Your task to perform on an android device: Open sound settings Image 0: 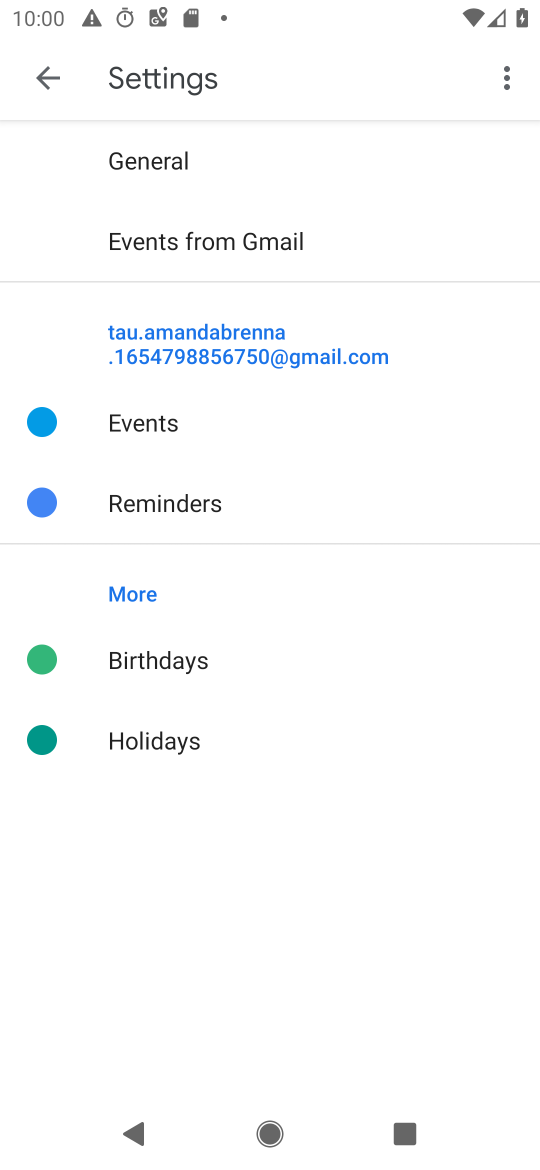
Step 0: press home button
Your task to perform on an android device: Open sound settings Image 1: 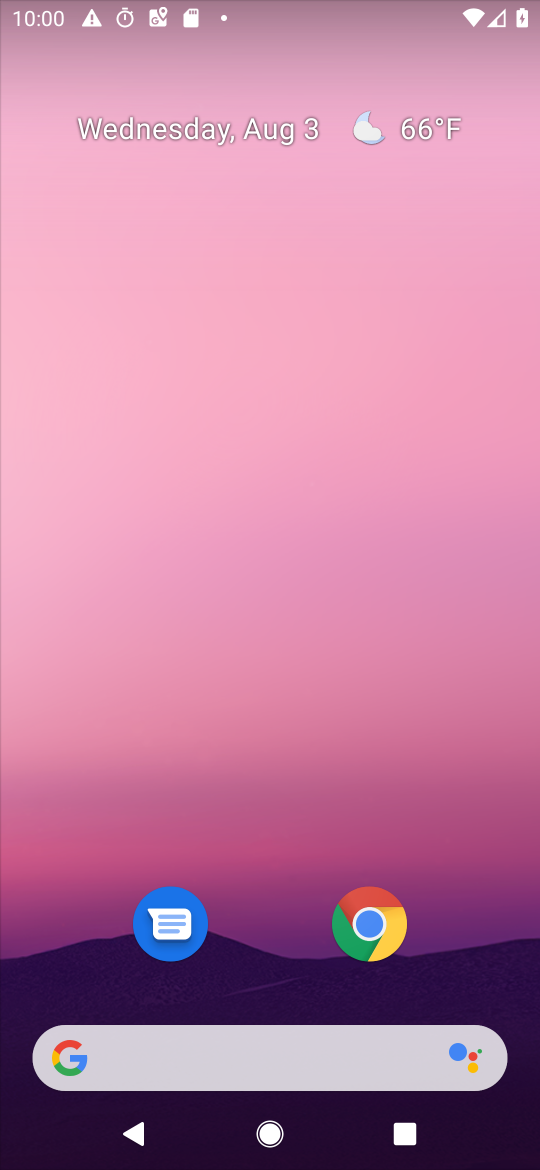
Step 1: drag from (276, 987) to (253, 292)
Your task to perform on an android device: Open sound settings Image 2: 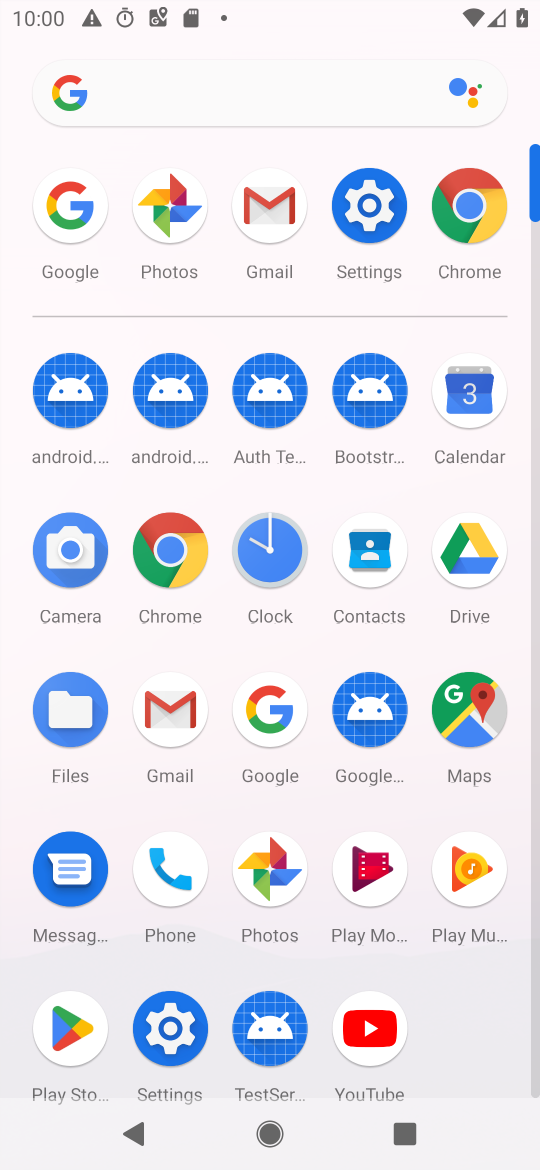
Step 2: click (374, 188)
Your task to perform on an android device: Open sound settings Image 3: 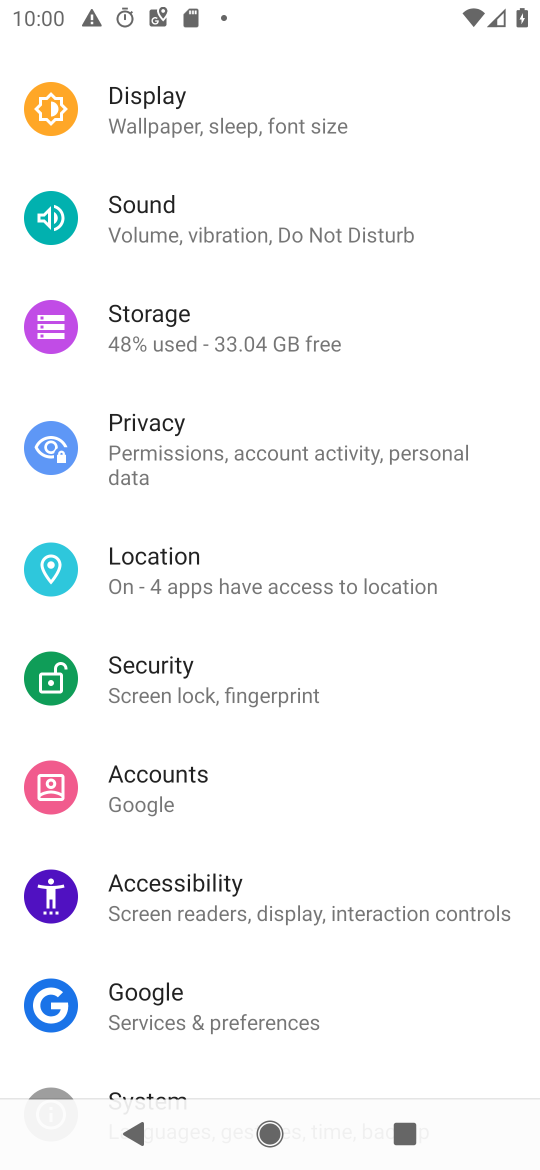
Step 3: click (183, 222)
Your task to perform on an android device: Open sound settings Image 4: 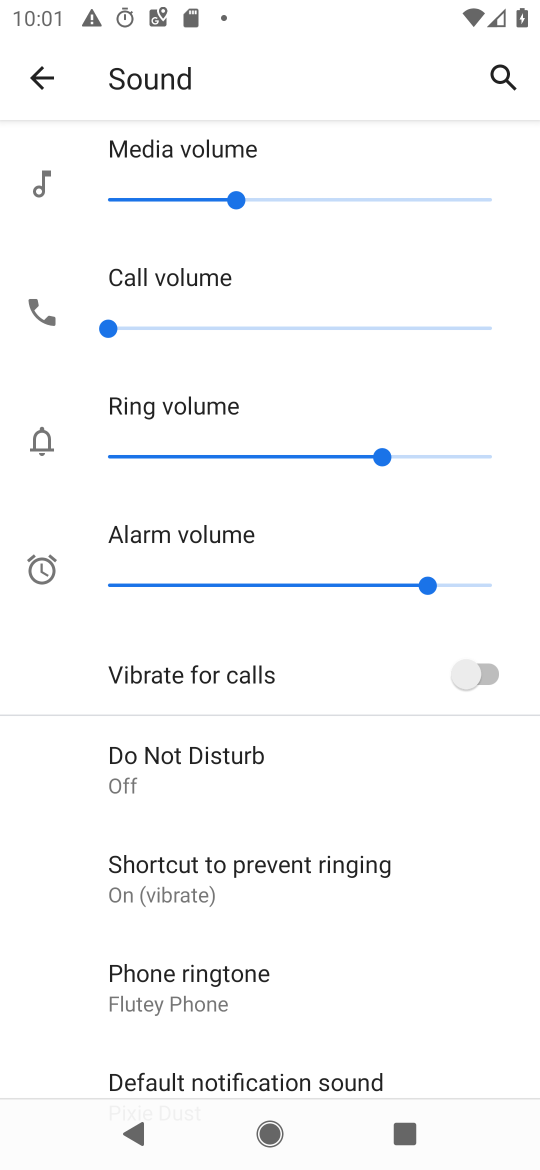
Step 4: drag from (356, 987) to (300, 480)
Your task to perform on an android device: Open sound settings Image 5: 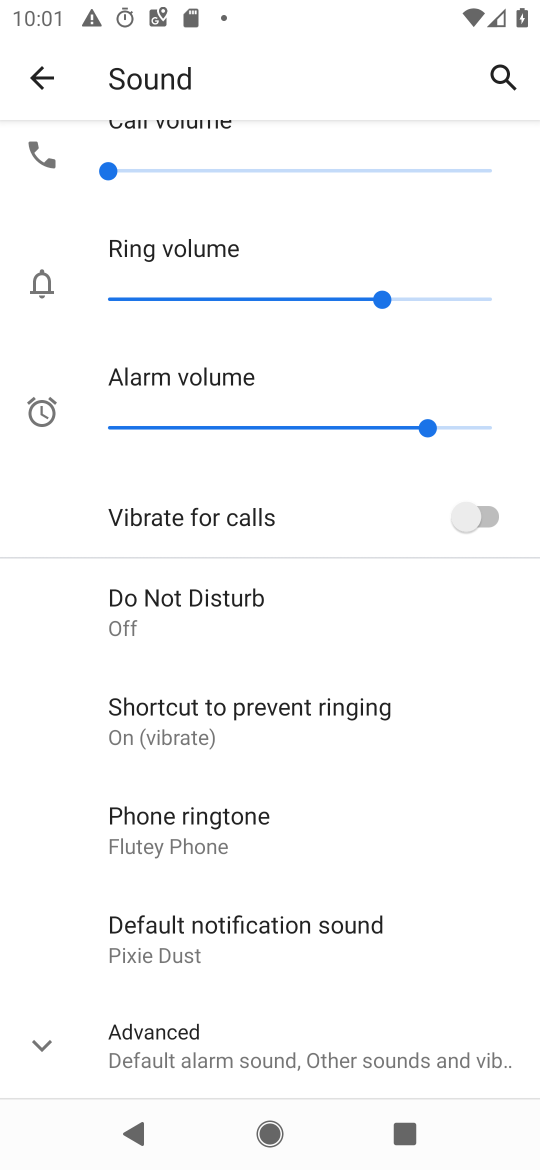
Step 5: click (47, 1049)
Your task to perform on an android device: Open sound settings Image 6: 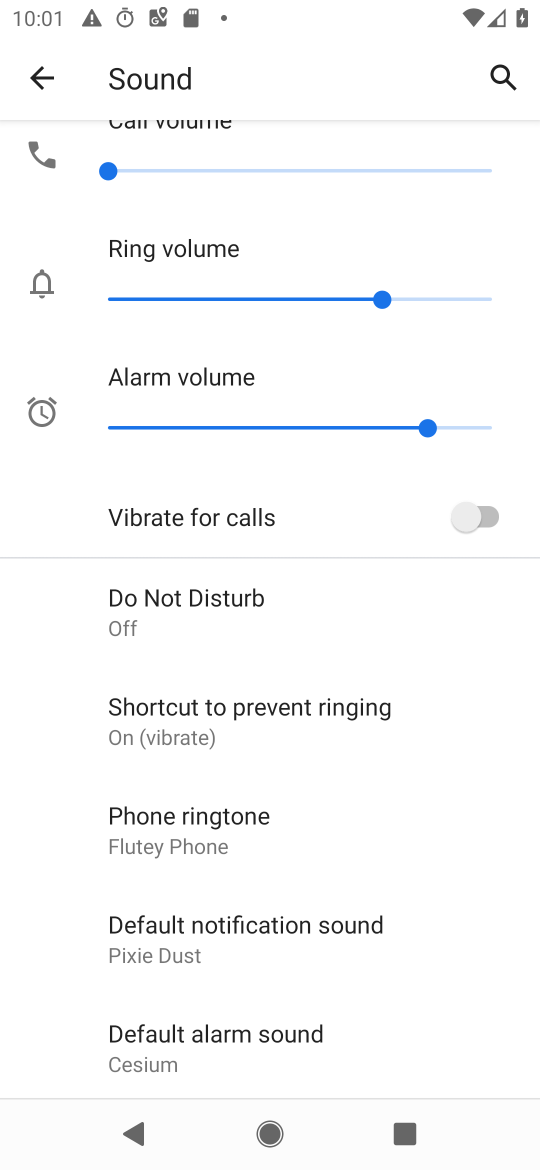
Step 6: task complete